Your task to perform on an android device: see sites visited before in the chrome app Image 0: 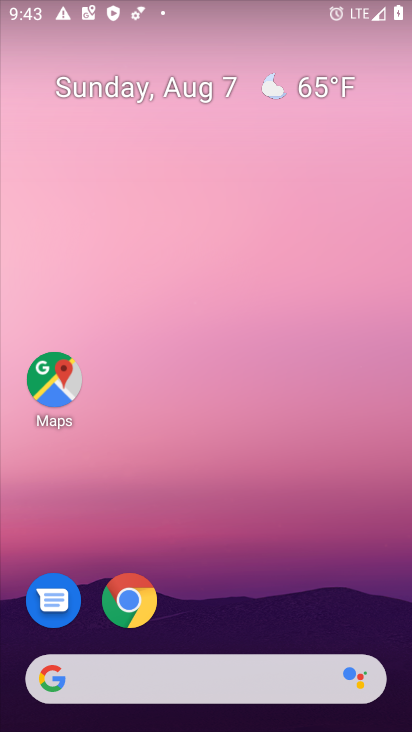
Step 0: click (189, 613)
Your task to perform on an android device: see sites visited before in the chrome app Image 1: 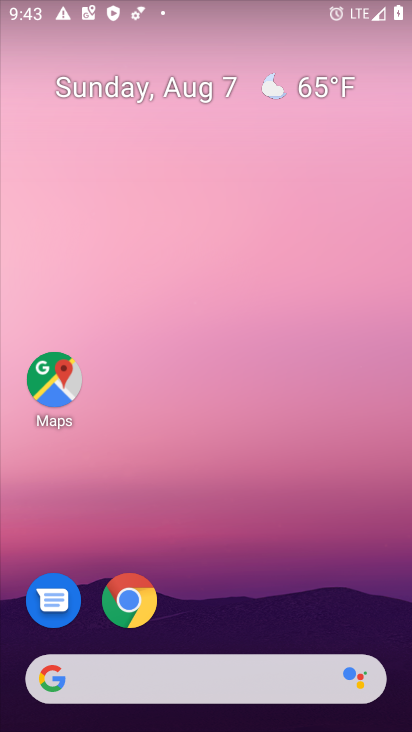
Step 1: click (128, 600)
Your task to perform on an android device: see sites visited before in the chrome app Image 2: 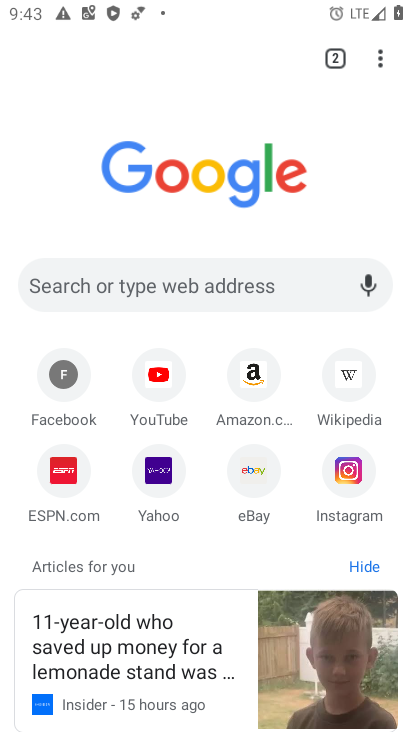
Step 2: click (381, 58)
Your task to perform on an android device: see sites visited before in the chrome app Image 3: 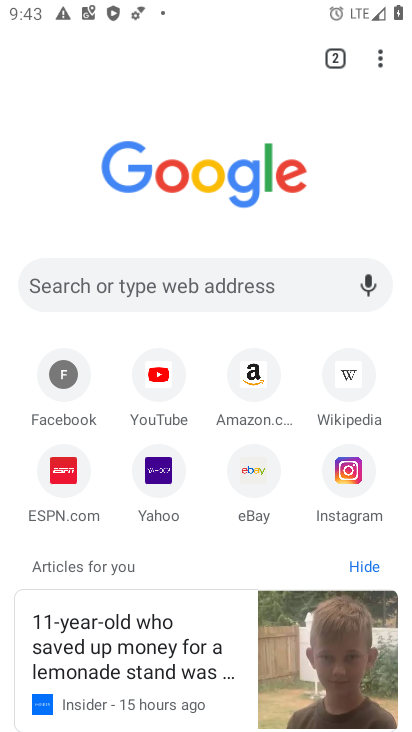
Step 3: click (378, 60)
Your task to perform on an android device: see sites visited before in the chrome app Image 4: 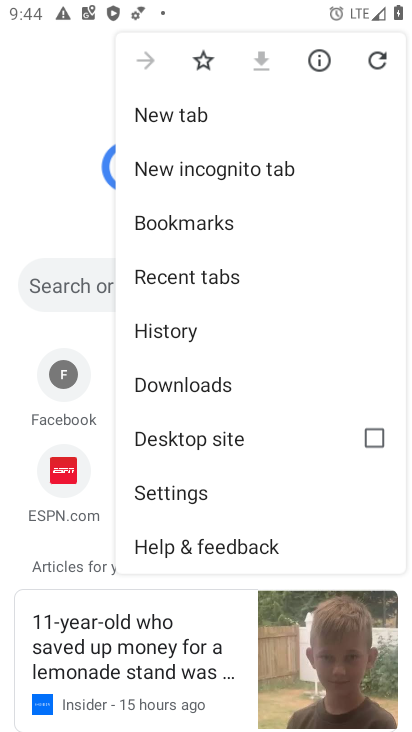
Step 4: click (168, 328)
Your task to perform on an android device: see sites visited before in the chrome app Image 5: 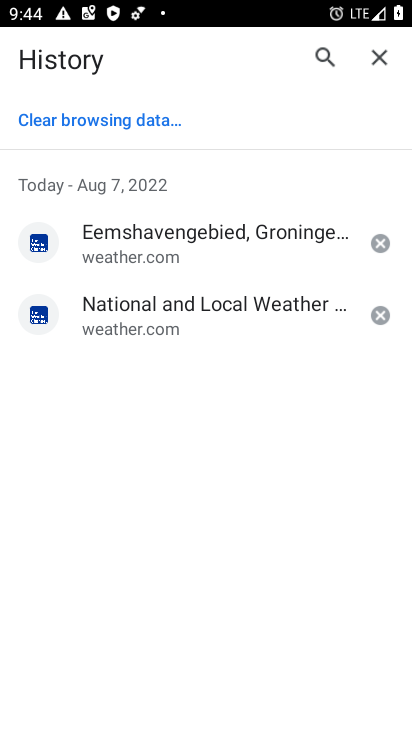
Step 5: task complete